Your task to perform on an android device: choose inbox layout in the gmail app Image 0: 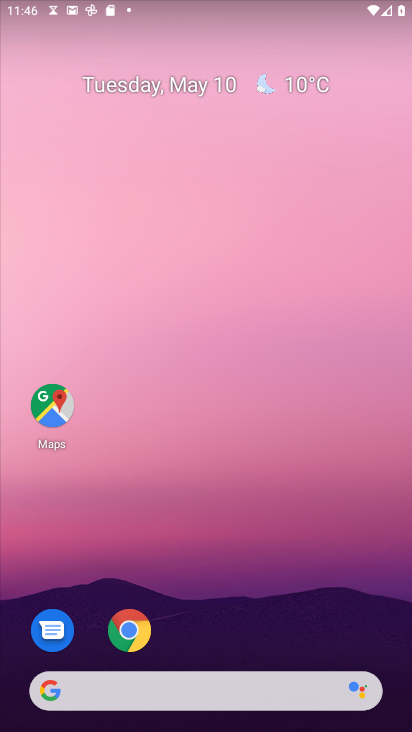
Step 0: drag from (313, 556) to (245, 100)
Your task to perform on an android device: choose inbox layout in the gmail app Image 1: 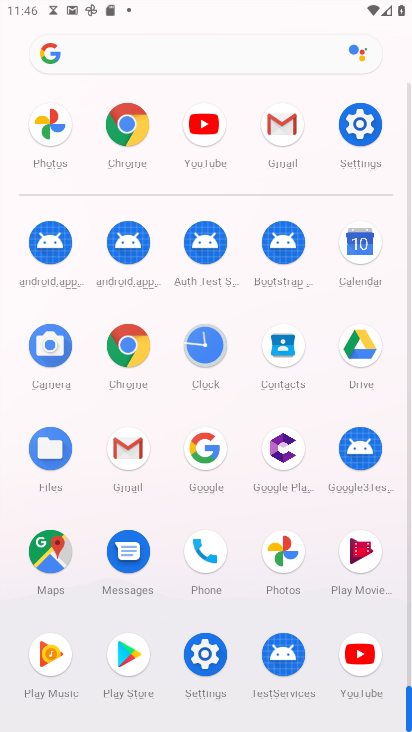
Step 1: click (269, 141)
Your task to perform on an android device: choose inbox layout in the gmail app Image 2: 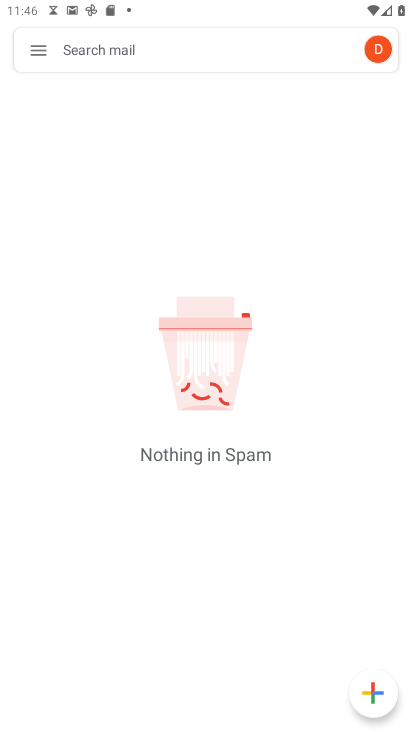
Step 2: click (37, 52)
Your task to perform on an android device: choose inbox layout in the gmail app Image 3: 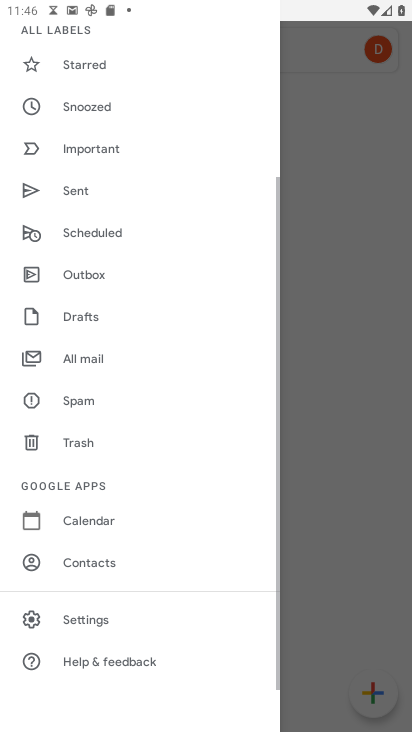
Step 3: click (92, 629)
Your task to perform on an android device: choose inbox layout in the gmail app Image 4: 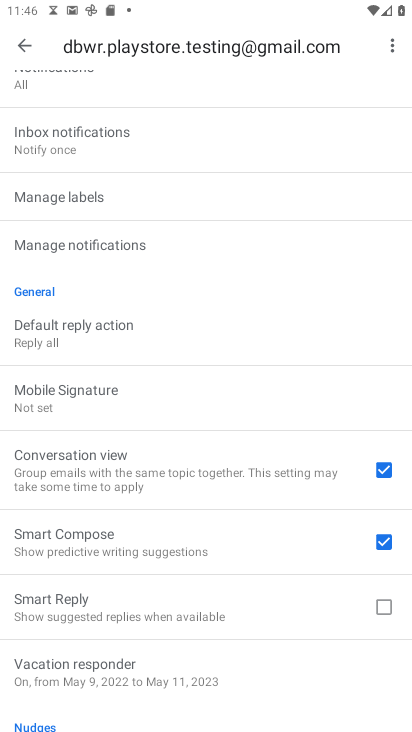
Step 4: drag from (116, 191) to (114, 533)
Your task to perform on an android device: choose inbox layout in the gmail app Image 5: 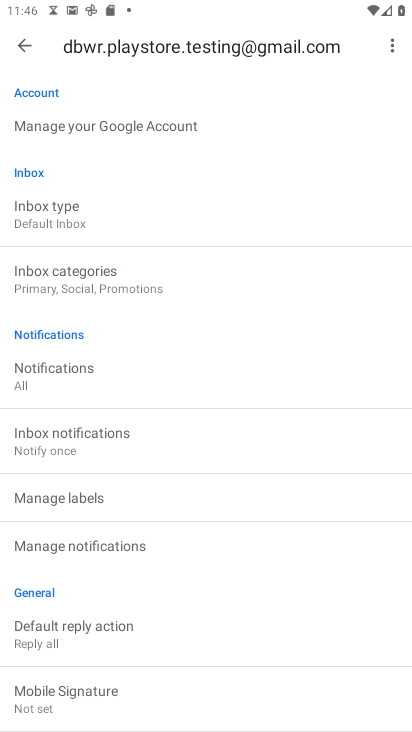
Step 5: drag from (83, 149) to (94, 541)
Your task to perform on an android device: choose inbox layout in the gmail app Image 6: 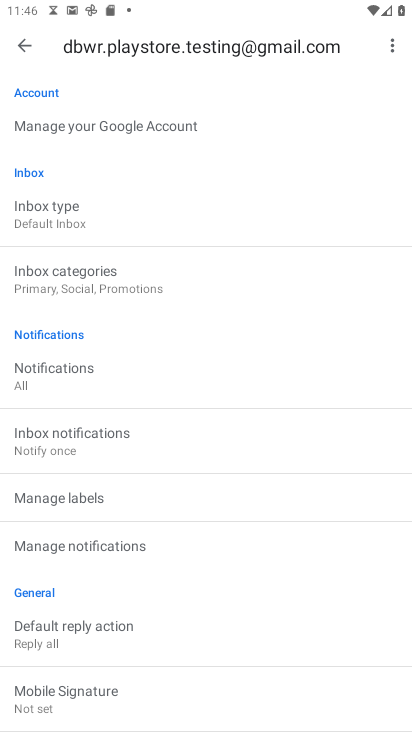
Step 6: click (49, 217)
Your task to perform on an android device: choose inbox layout in the gmail app Image 7: 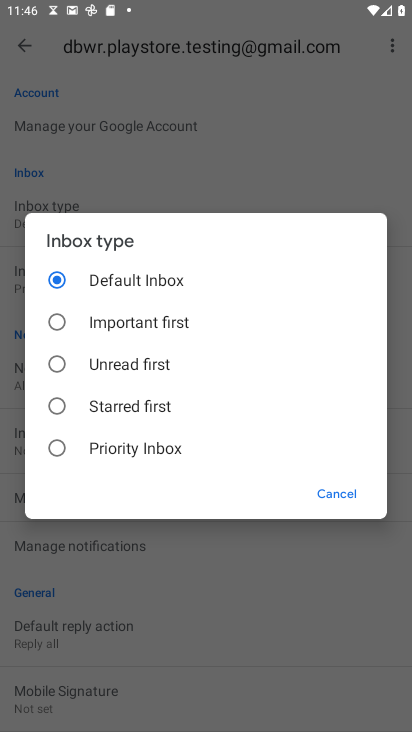
Step 7: click (54, 446)
Your task to perform on an android device: choose inbox layout in the gmail app Image 8: 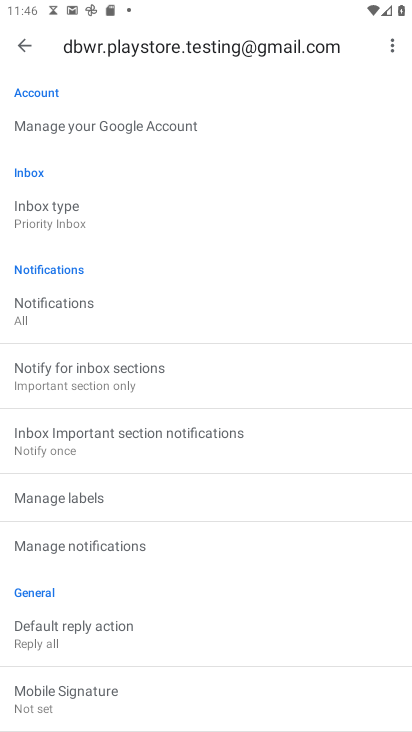
Step 8: task complete